Your task to perform on an android device: refresh tabs in the chrome app Image 0: 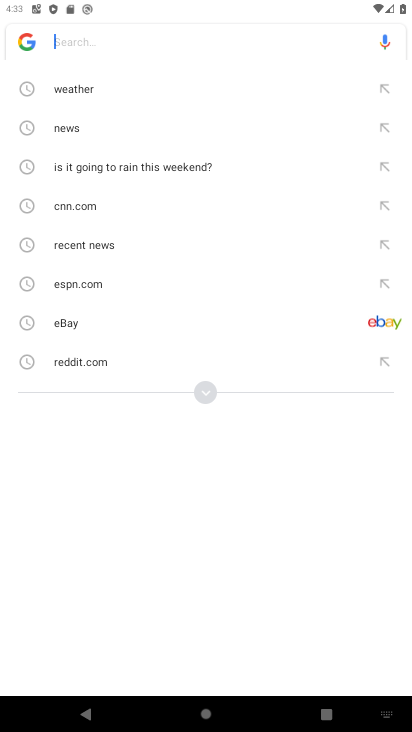
Step 0: press home button
Your task to perform on an android device: refresh tabs in the chrome app Image 1: 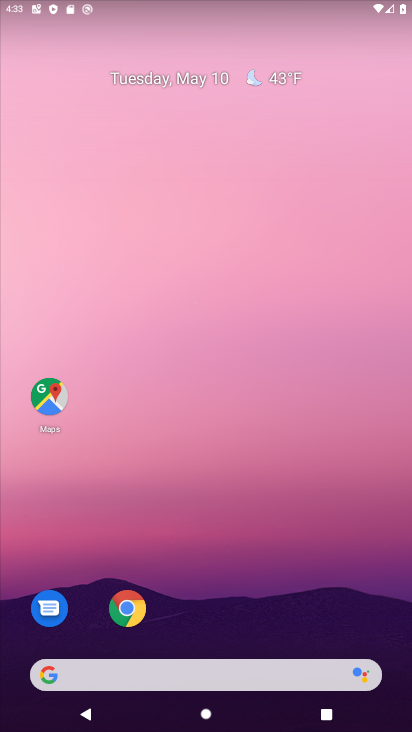
Step 1: click (126, 606)
Your task to perform on an android device: refresh tabs in the chrome app Image 2: 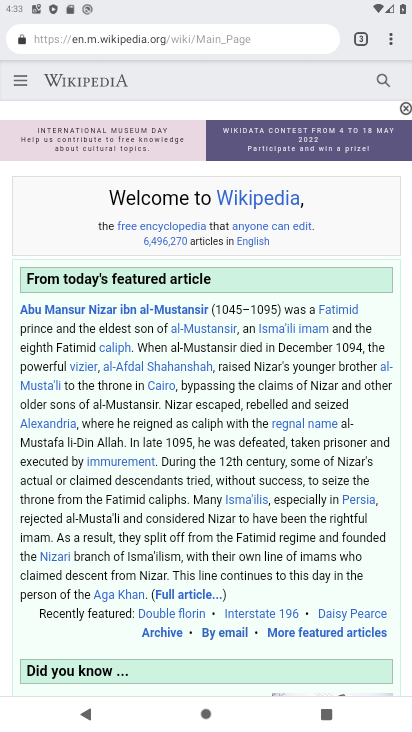
Step 2: click (399, 37)
Your task to perform on an android device: refresh tabs in the chrome app Image 3: 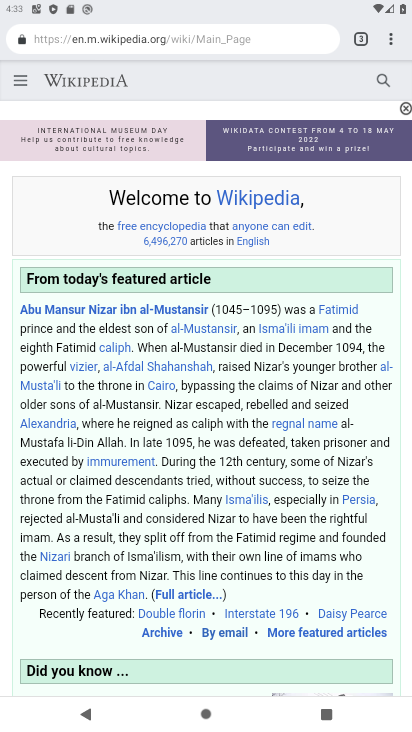
Step 3: task complete